Your task to perform on an android device: Go to wifi settings Image 0: 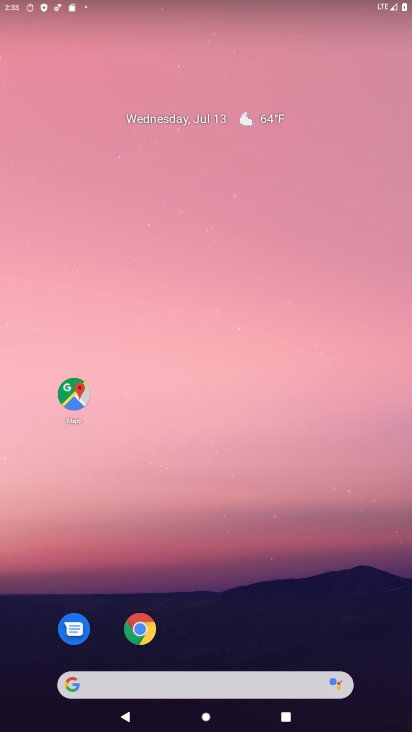
Step 0: drag from (145, 681) to (223, 66)
Your task to perform on an android device: Go to wifi settings Image 1: 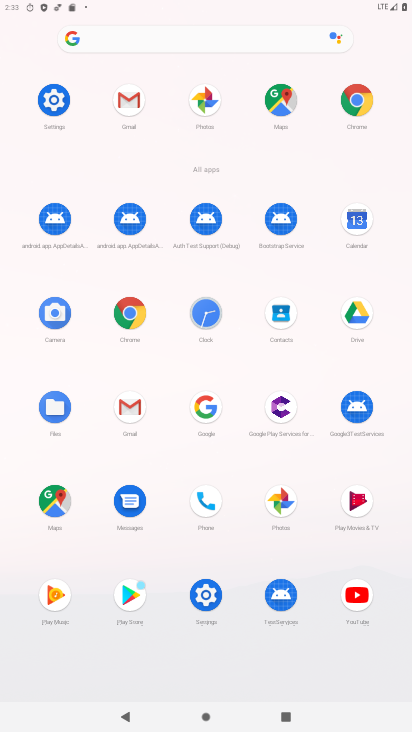
Step 1: click (55, 99)
Your task to perform on an android device: Go to wifi settings Image 2: 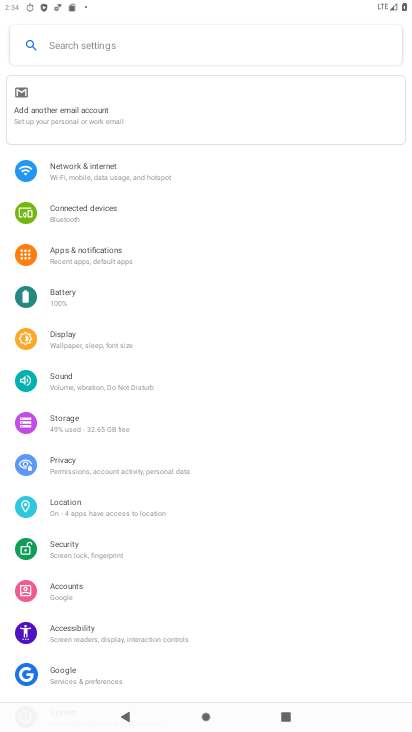
Step 2: click (131, 165)
Your task to perform on an android device: Go to wifi settings Image 3: 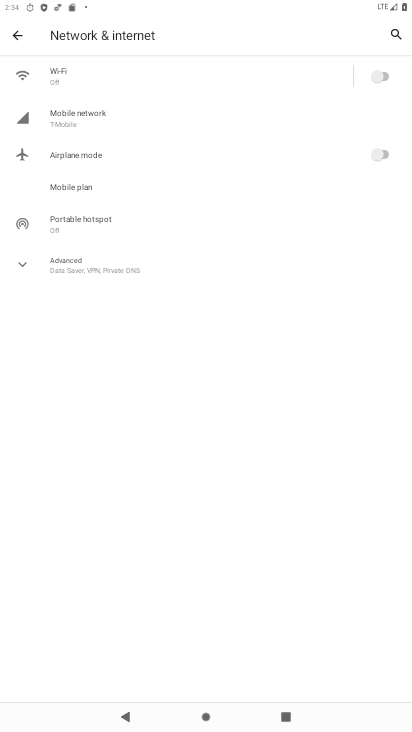
Step 3: click (76, 83)
Your task to perform on an android device: Go to wifi settings Image 4: 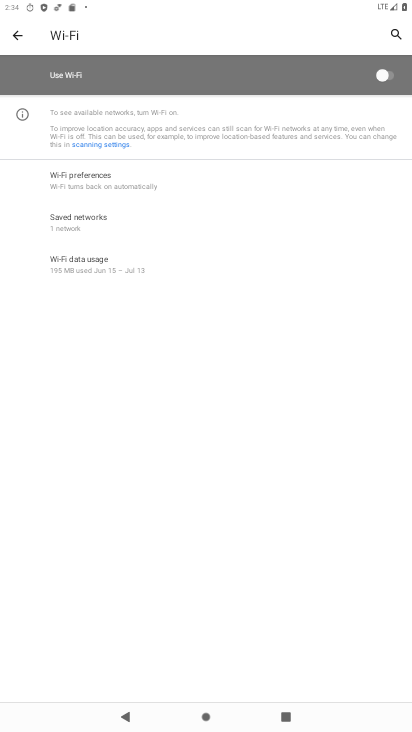
Step 4: task complete